Your task to perform on an android device: Add razer huntsman to the cart on ebay.com Image 0: 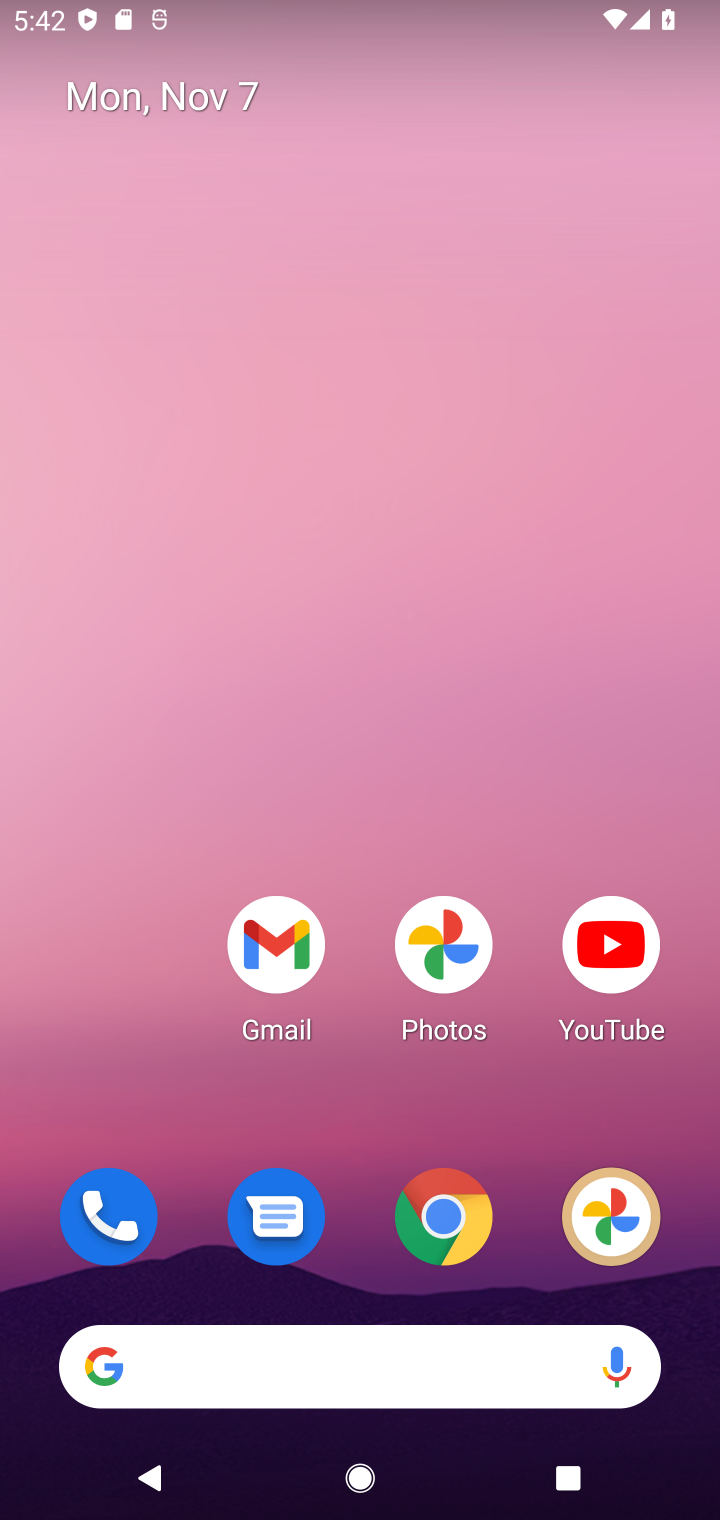
Step 0: drag from (357, 1133) to (444, 74)
Your task to perform on an android device: Add razer huntsman to the cart on ebay.com Image 1: 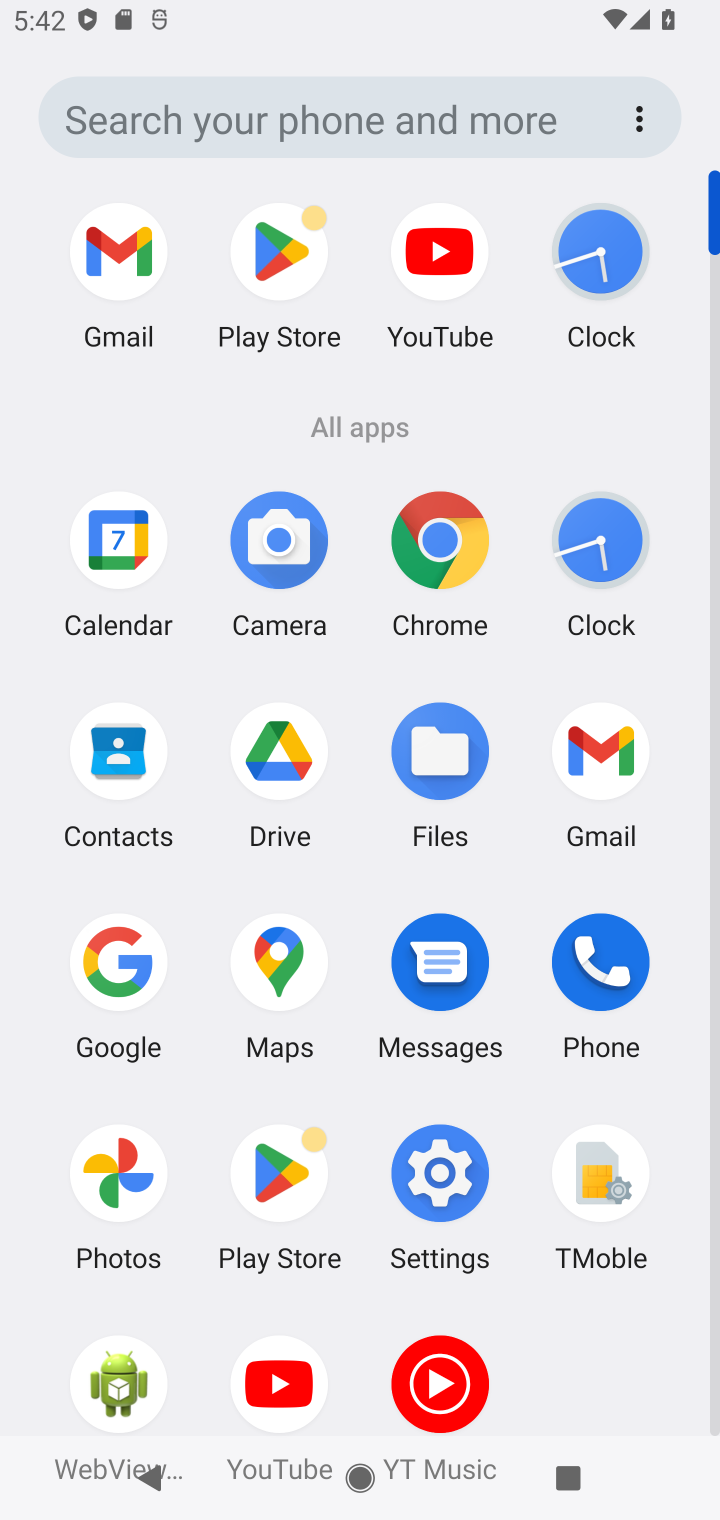
Step 1: click (431, 552)
Your task to perform on an android device: Add razer huntsman to the cart on ebay.com Image 2: 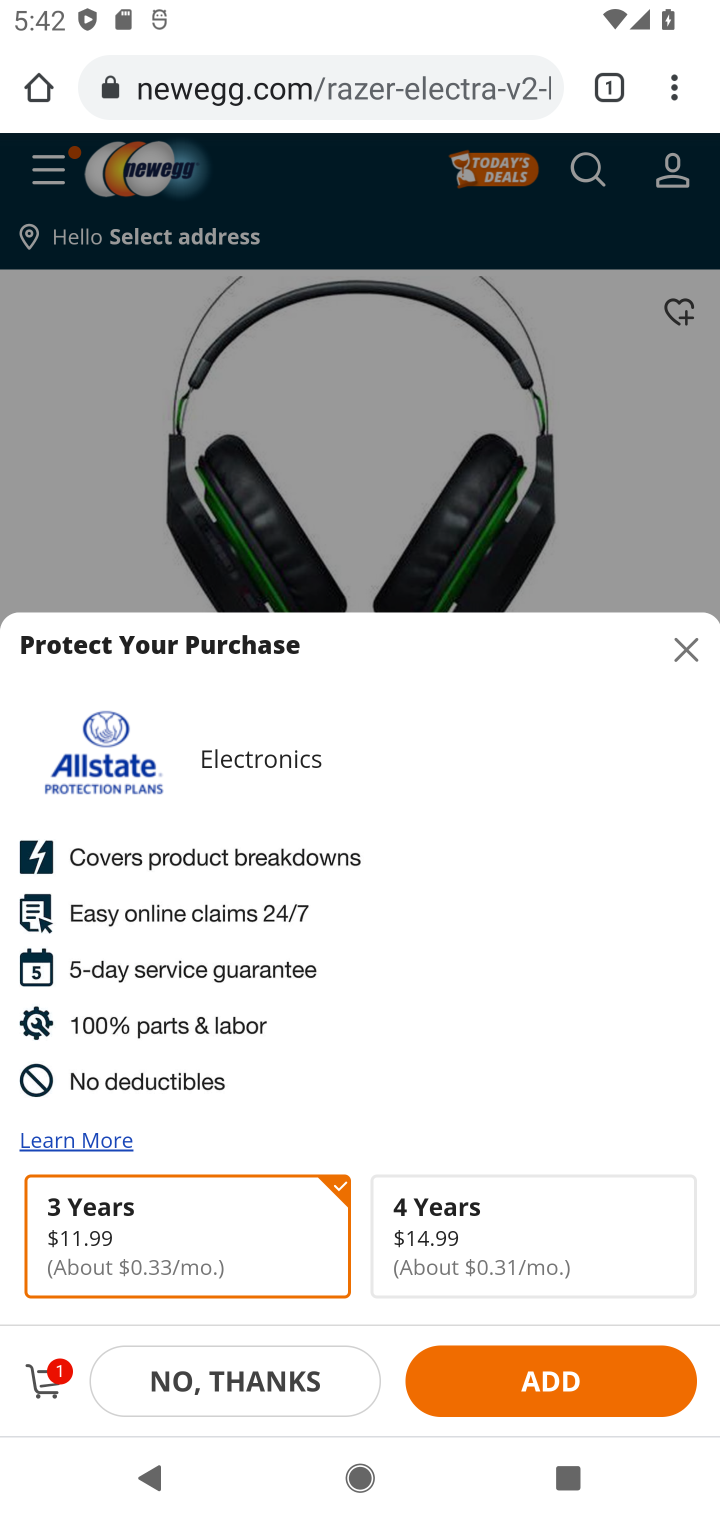
Step 2: click (284, 78)
Your task to perform on an android device: Add razer huntsman to the cart on ebay.com Image 3: 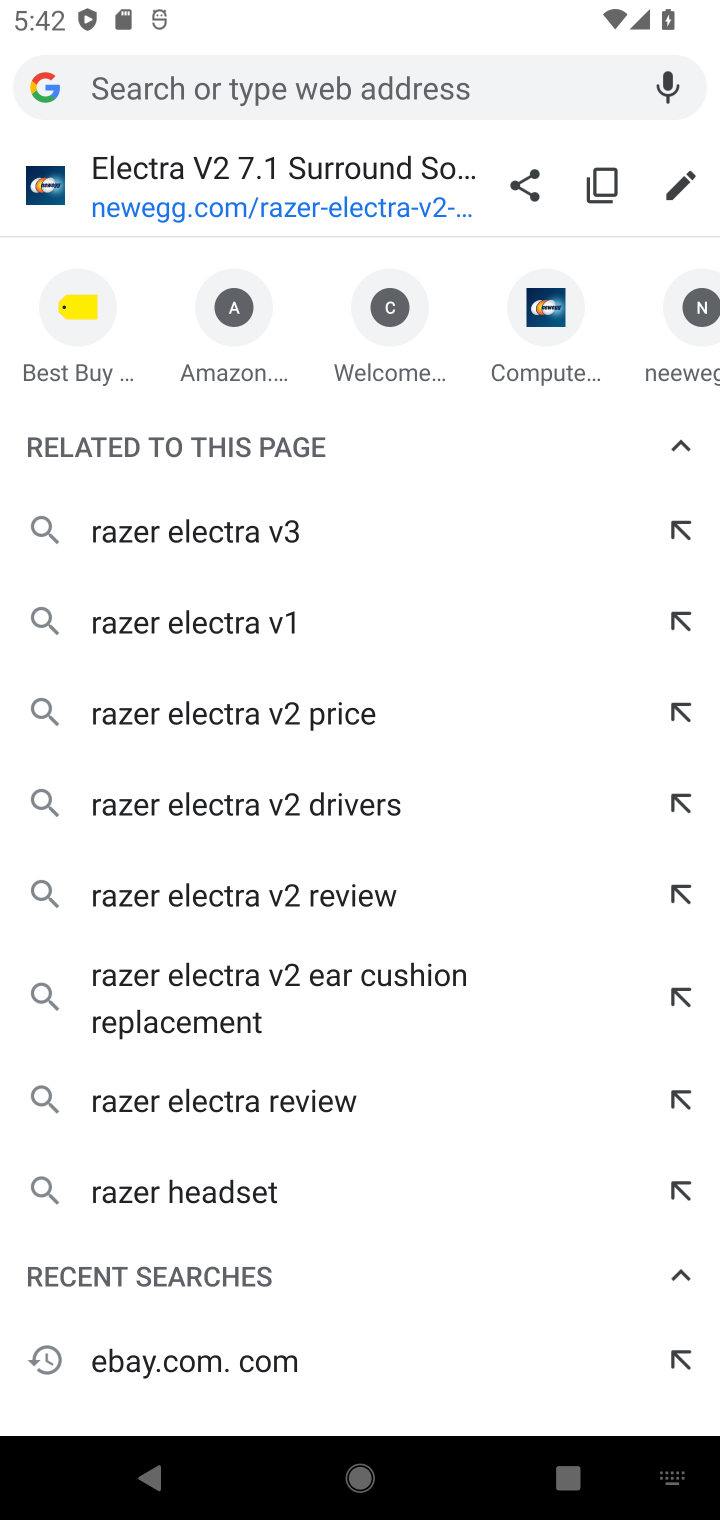
Step 3: type "ebay.com"
Your task to perform on an android device: Add razer huntsman to the cart on ebay.com Image 4: 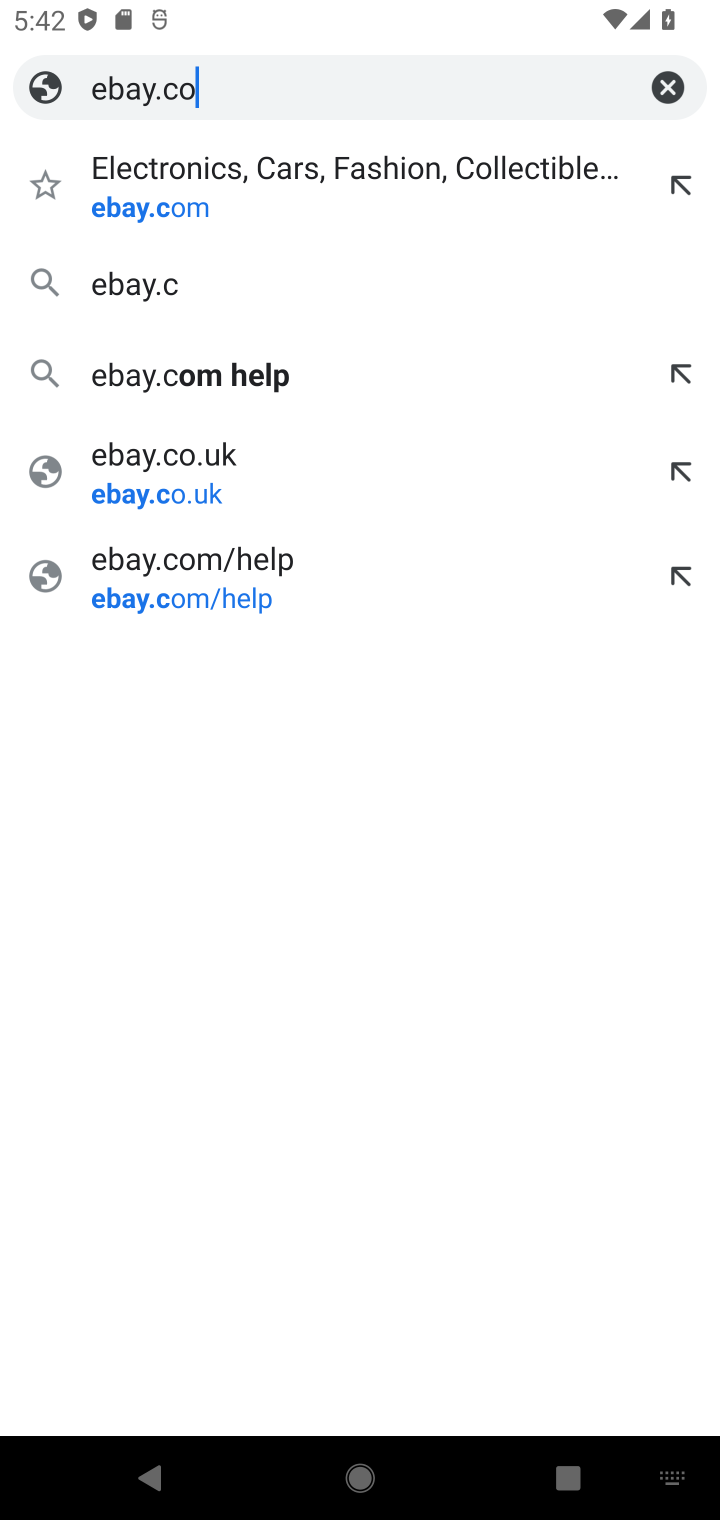
Step 4: press enter
Your task to perform on an android device: Add razer huntsman to the cart on ebay.com Image 5: 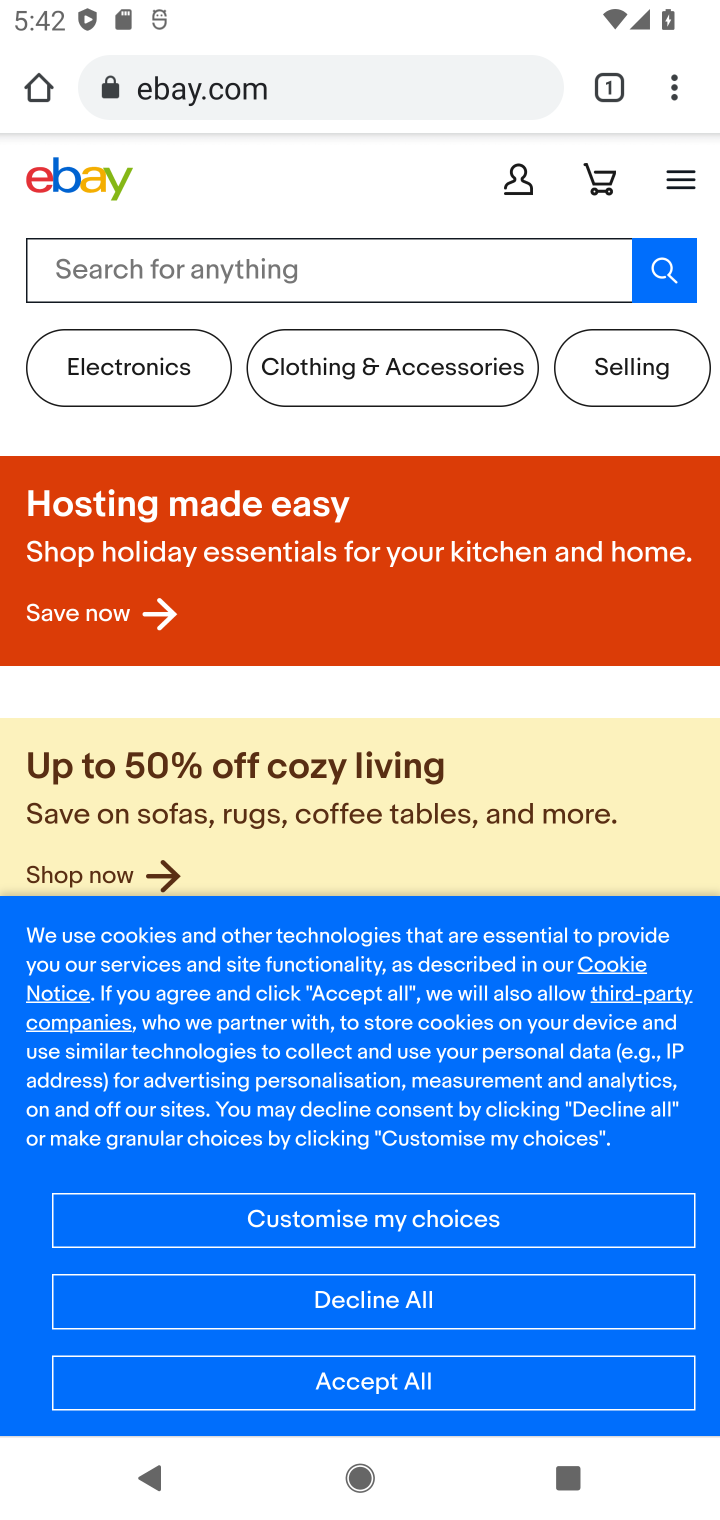
Step 5: click (308, 281)
Your task to perform on an android device: Add razer huntsman to the cart on ebay.com Image 6: 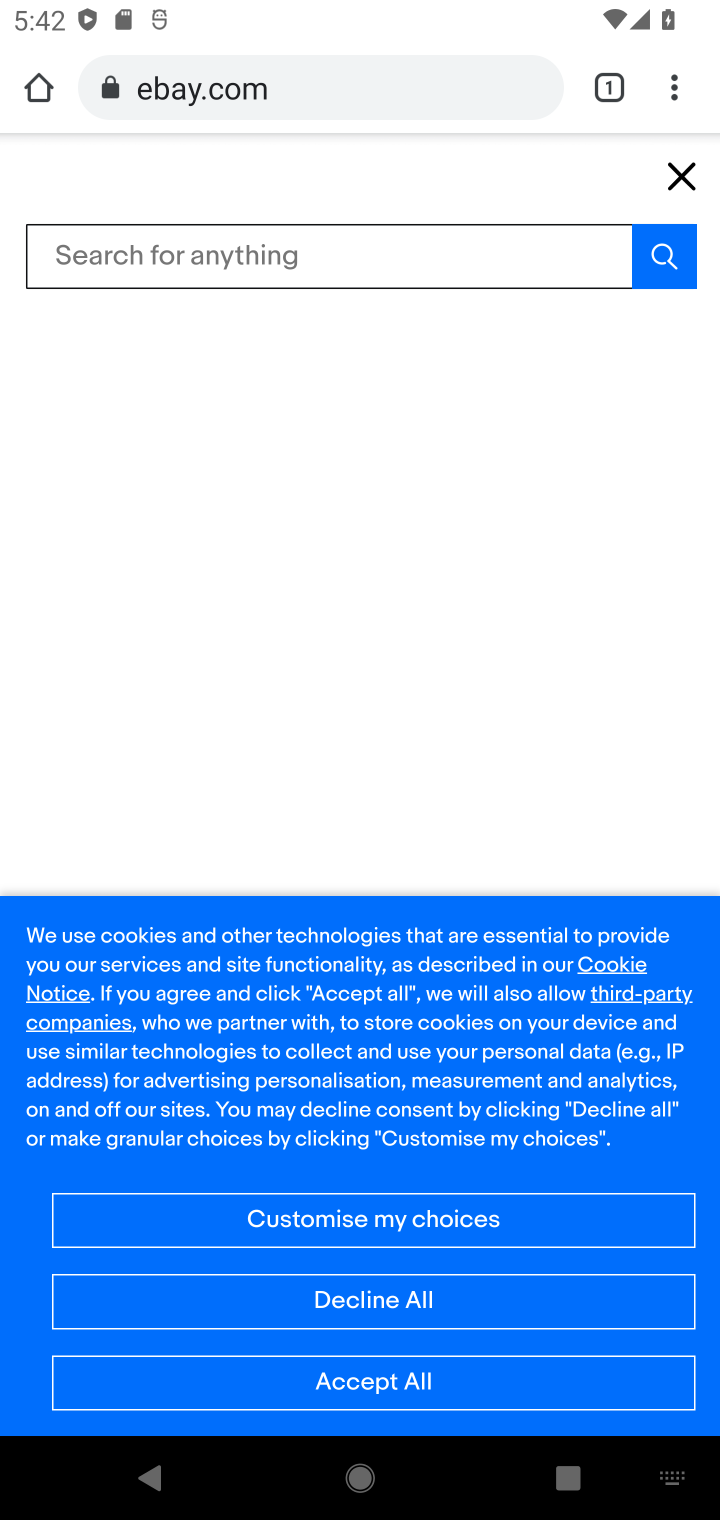
Step 6: type "razer huntsman"
Your task to perform on an android device: Add razer huntsman to the cart on ebay.com Image 7: 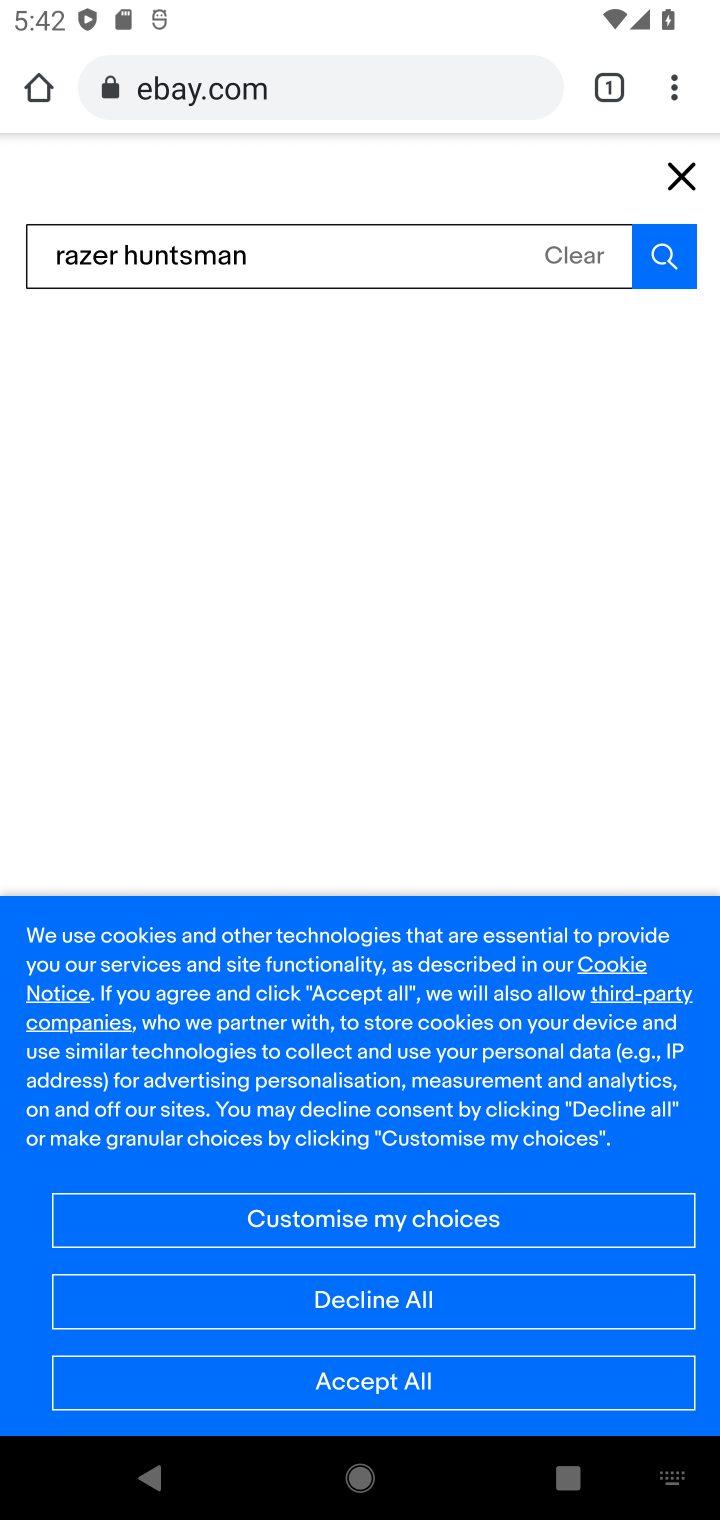
Step 7: press enter
Your task to perform on an android device: Add razer huntsman to the cart on ebay.com Image 8: 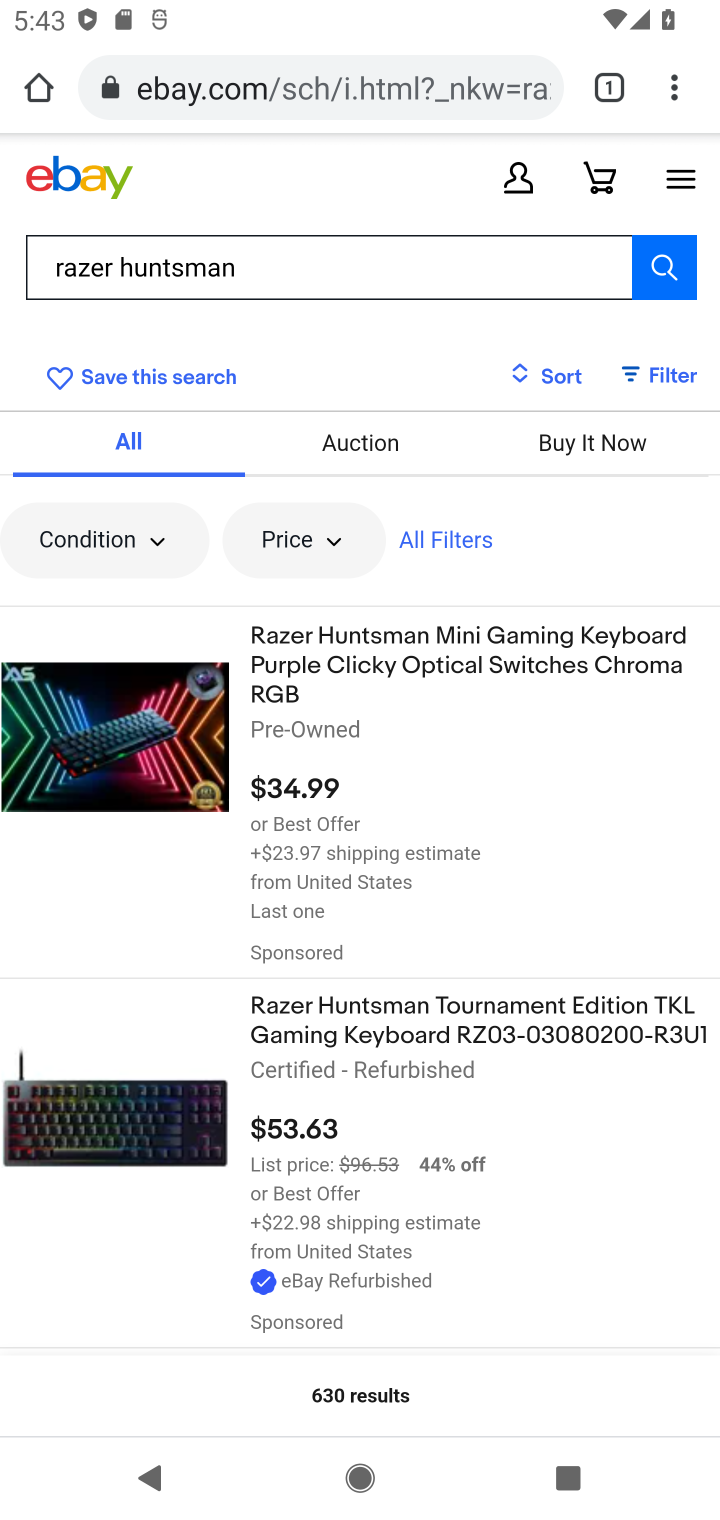
Step 8: click (319, 654)
Your task to perform on an android device: Add razer huntsman to the cart on ebay.com Image 9: 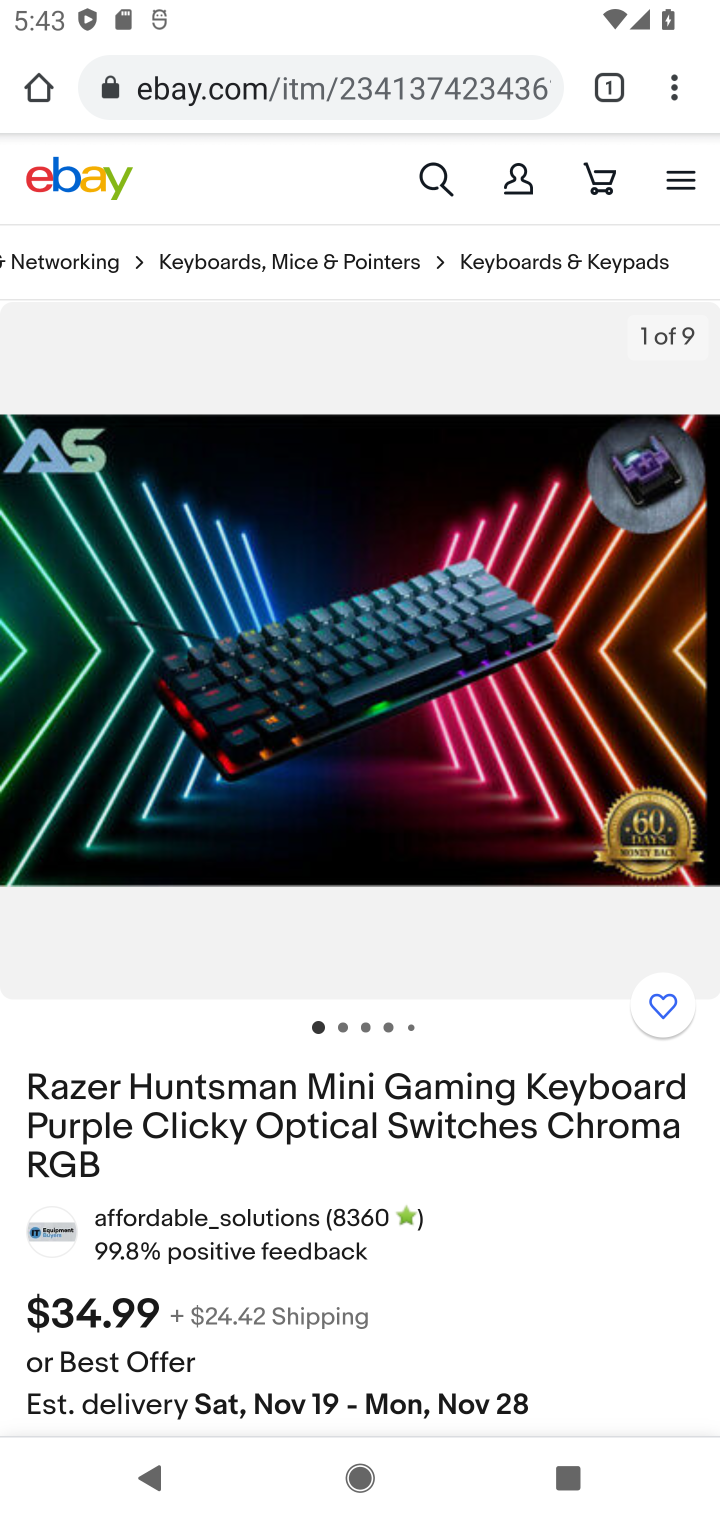
Step 9: drag from (274, 1067) to (368, 150)
Your task to perform on an android device: Add razer huntsman to the cart on ebay.com Image 10: 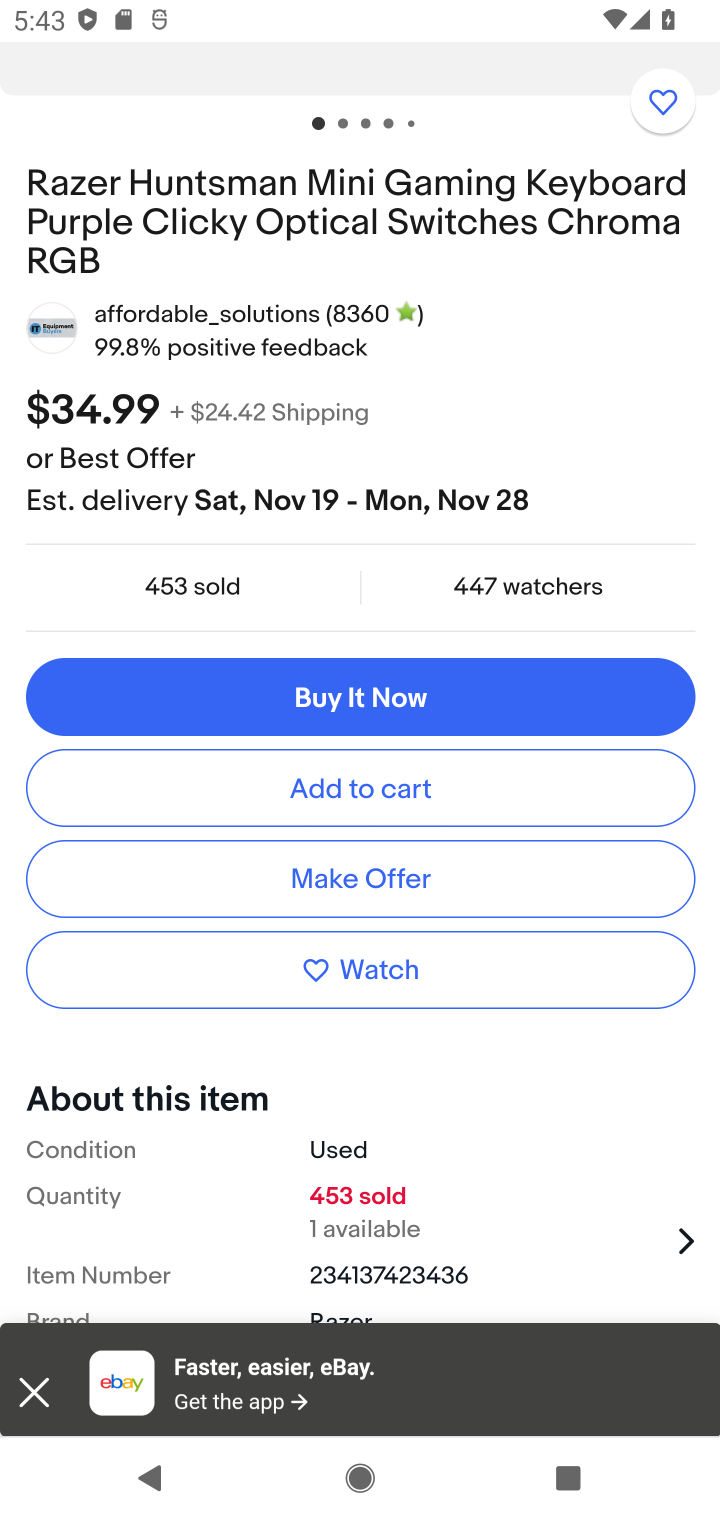
Step 10: click (423, 797)
Your task to perform on an android device: Add razer huntsman to the cart on ebay.com Image 11: 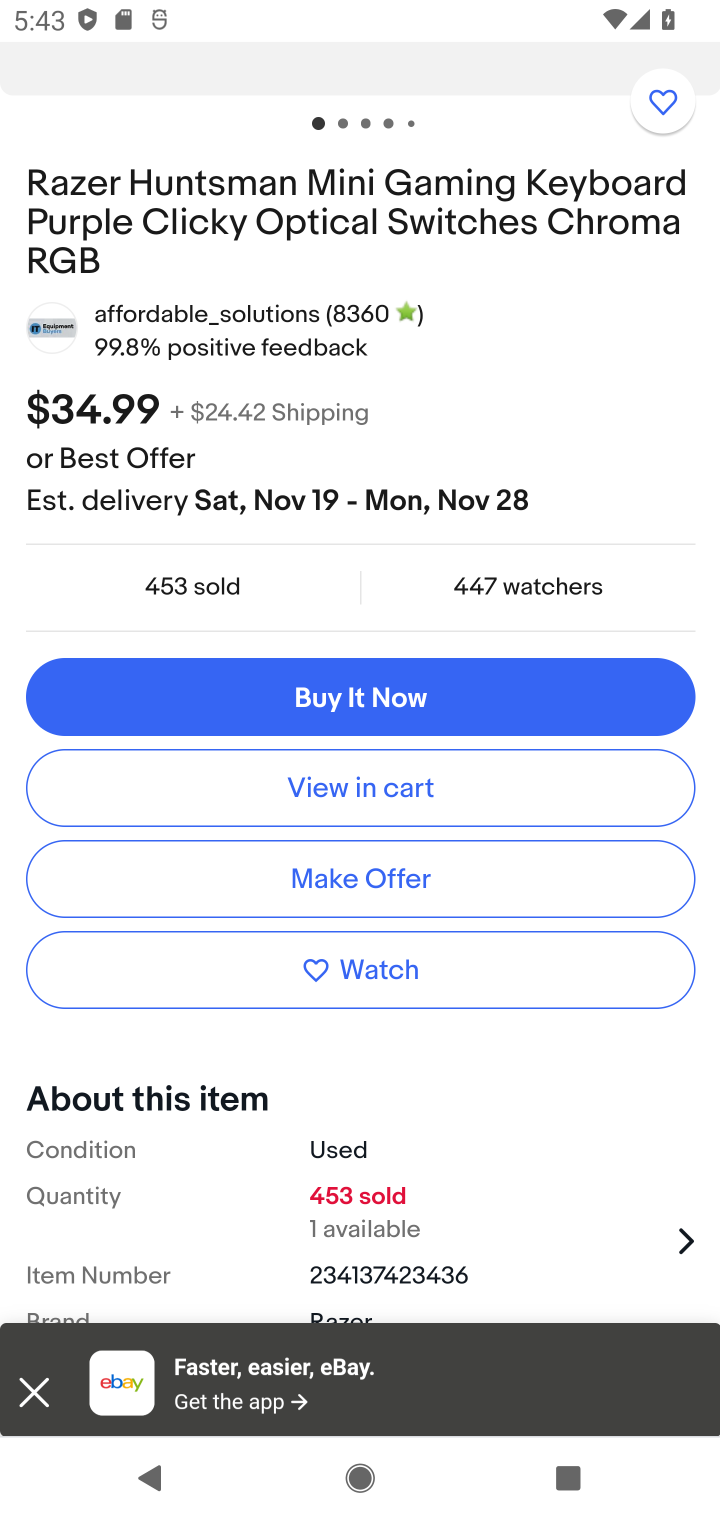
Step 11: task complete